Your task to perform on an android device: change your default location settings in chrome Image 0: 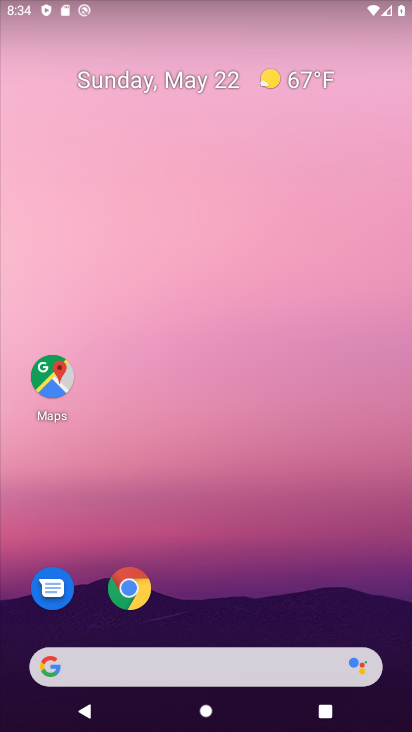
Step 0: click (135, 586)
Your task to perform on an android device: change your default location settings in chrome Image 1: 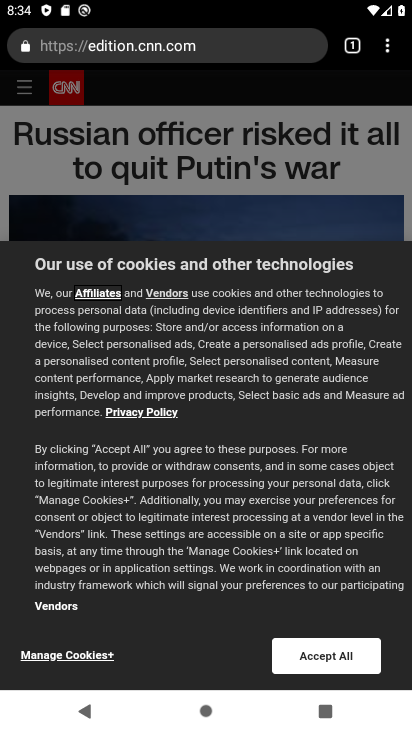
Step 1: click (385, 38)
Your task to perform on an android device: change your default location settings in chrome Image 2: 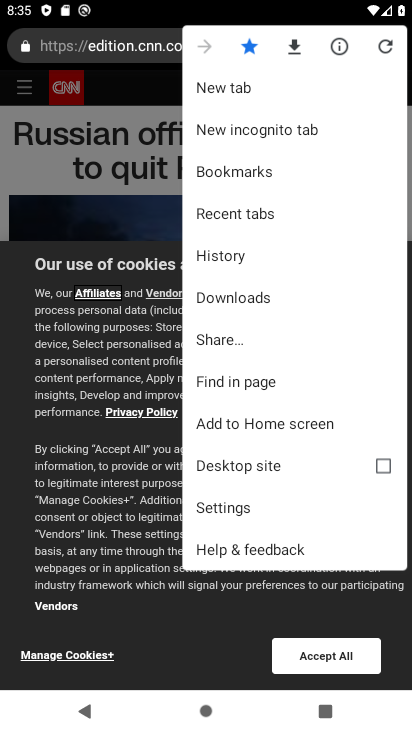
Step 2: click (255, 513)
Your task to perform on an android device: change your default location settings in chrome Image 3: 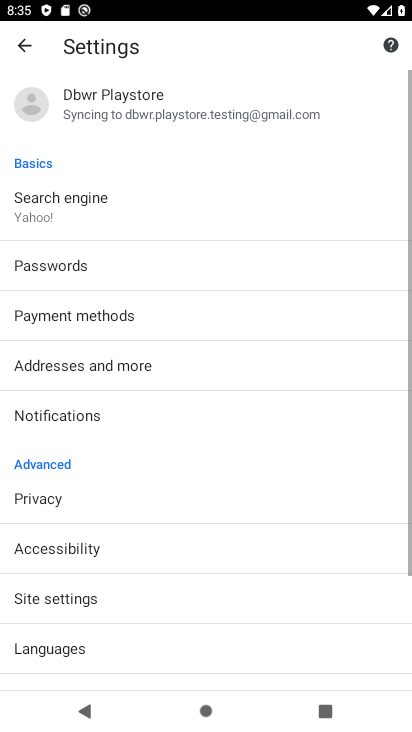
Step 3: drag from (221, 636) to (283, 264)
Your task to perform on an android device: change your default location settings in chrome Image 4: 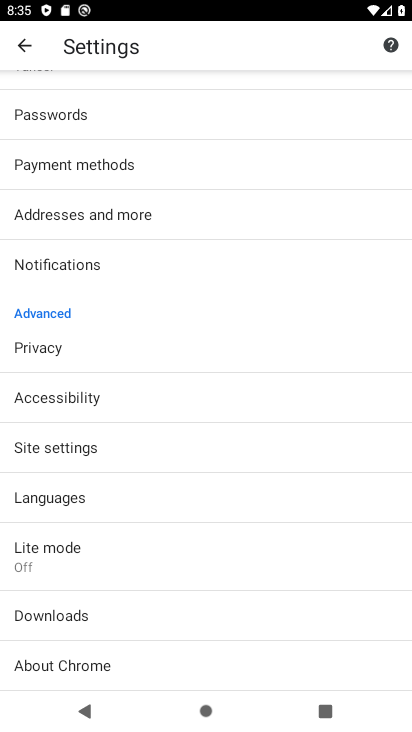
Step 4: click (69, 446)
Your task to perform on an android device: change your default location settings in chrome Image 5: 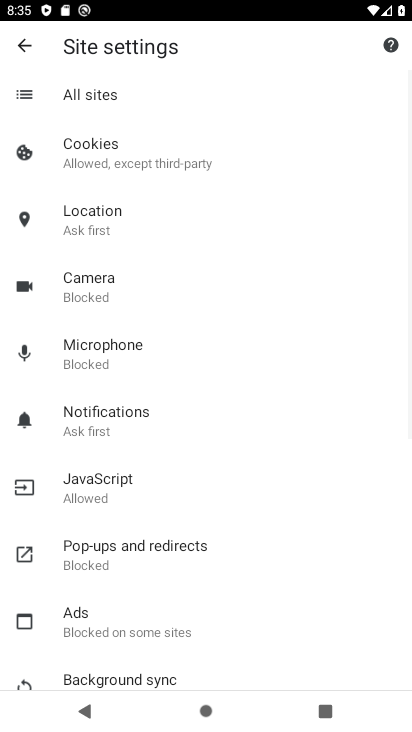
Step 5: click (133, 221)
Your task to perform on an android device: change your default location settings in chrome Image 6: 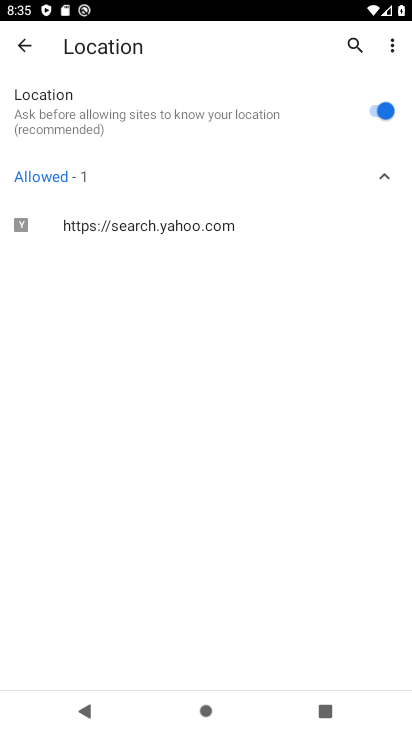
Step 6: click (368, 108)
Your task to perform on an android device: change your default location settings in chrome Image 7: 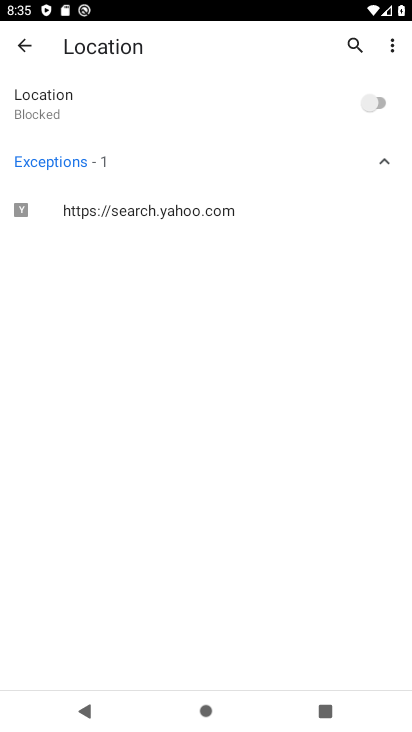
Step 7: task complete